Your task to perform on an android device: Open settings Image 0: 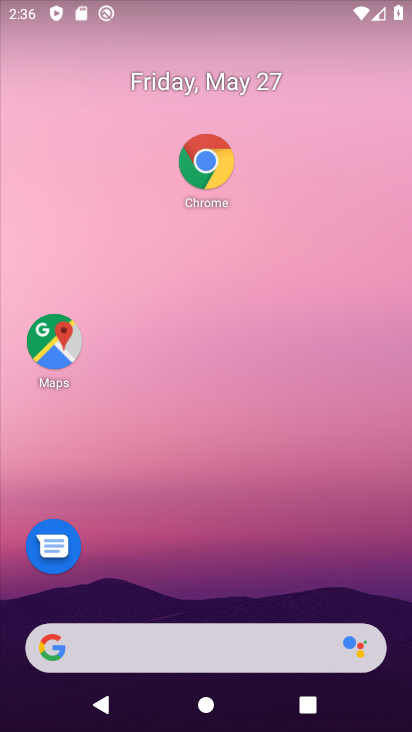
Step 0: drag from (168, 610) to (155, 147)
Your task to perform on an android device: Open settings Image 1: 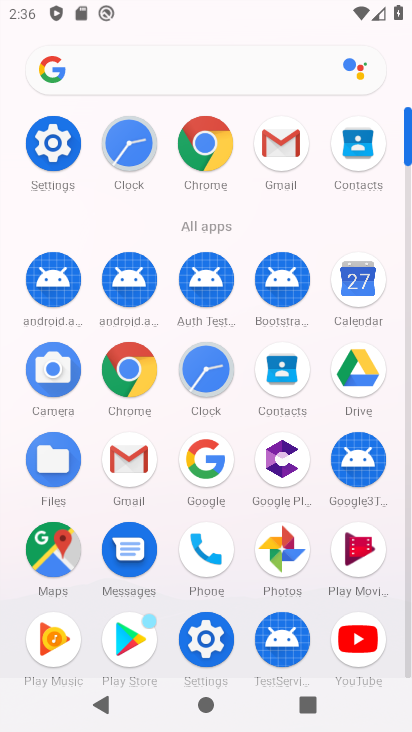
Step 1: click (36, 143)
Your task to perform on an android device: Open settings Image 2: 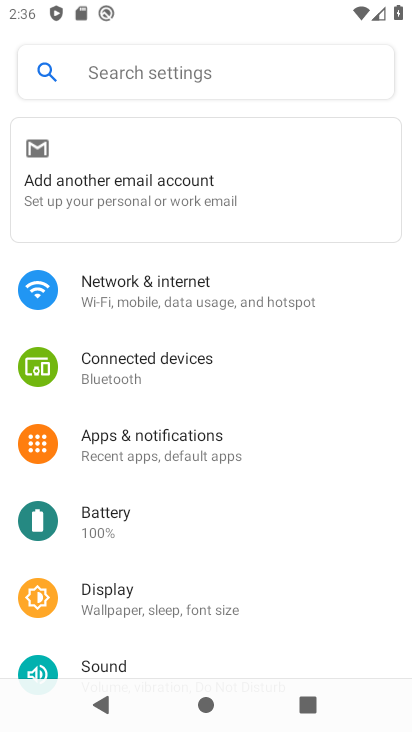
Step 2: task complete